Your task to perform on an android device: check data usage Image 0: 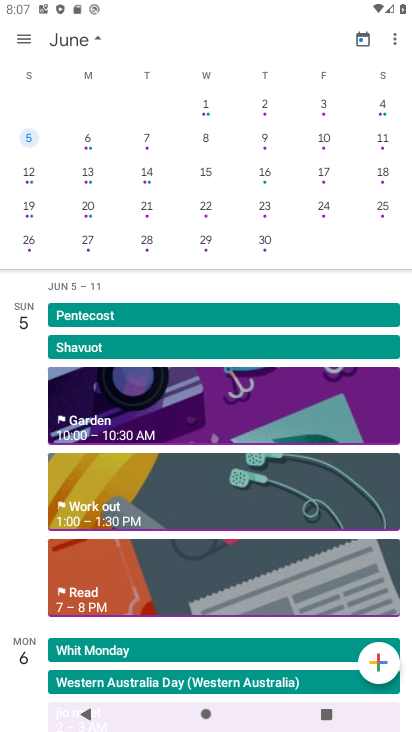
Step 0: press home button
Your task to perform on an android device: check data usage Image 1: 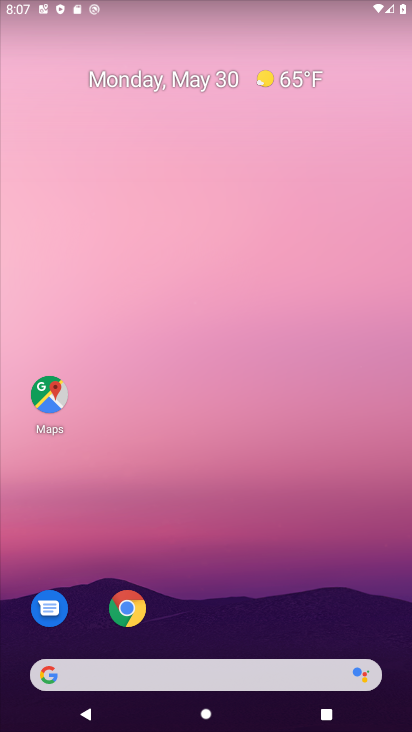
Step 1: drag from (236, 613) to (257, 215)
Your task to perform on an android device: check data usage Image 2: 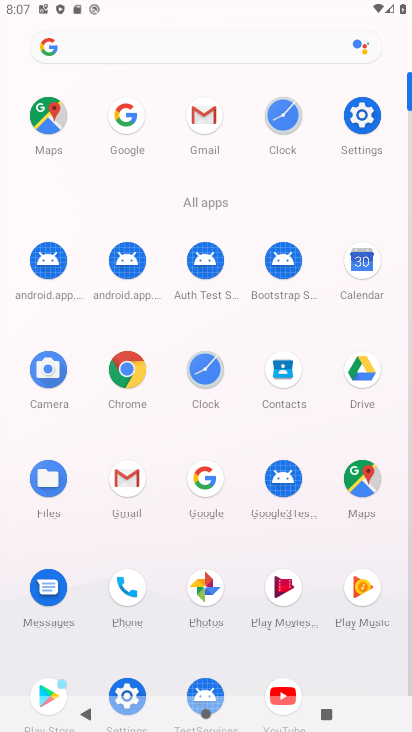
Step 2: click (377, 117)
Your task to perform on an android device: check data usage Image 3: 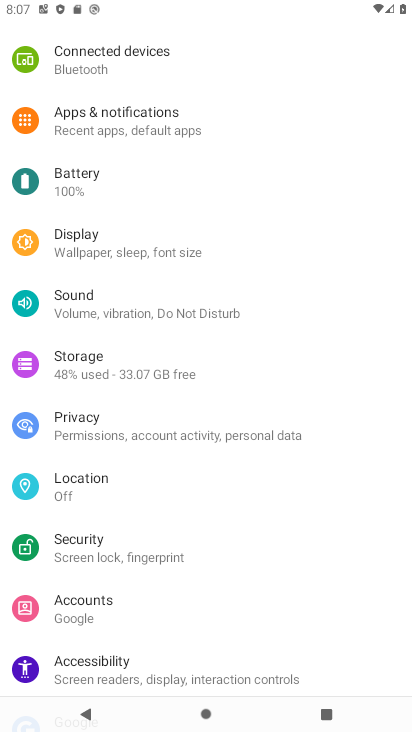
Step 3: drag from (254, 162) to (285, 612)
Your task to perform on an android device: check data usage Image 4: 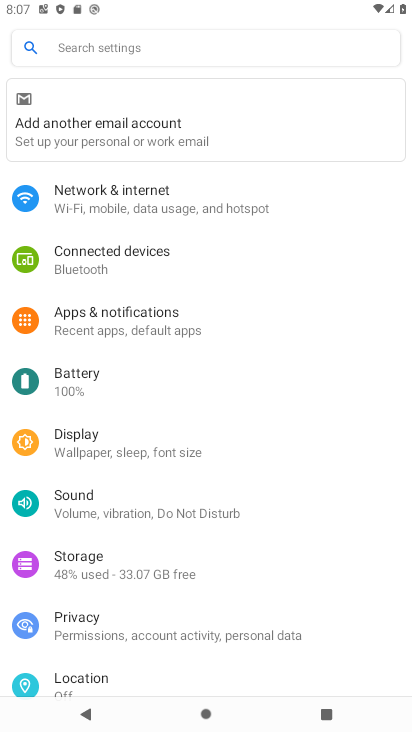
Step 4: click (161, 210)
Your task to perform on an android device: check data usage Image 5: 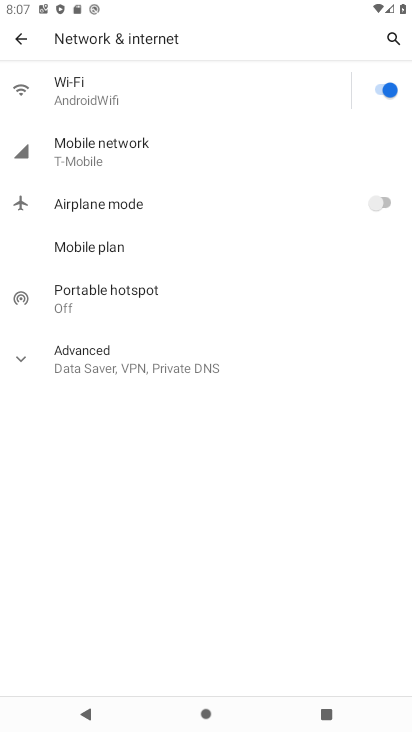
Step 5: click (132, 148)
Your task to perform on an android device: check data usage Image 6: 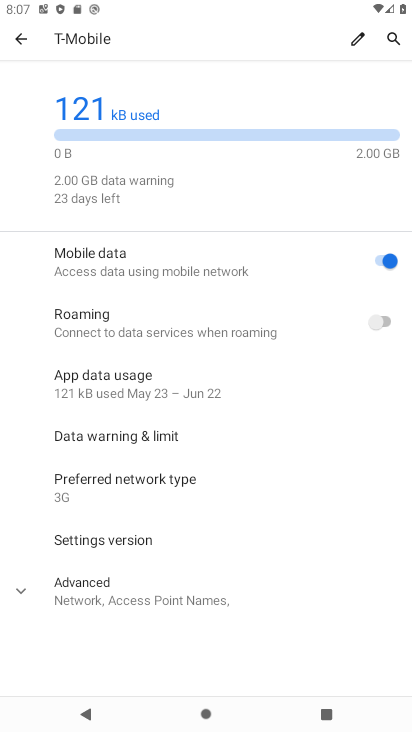
Step 6: click (167, 373)
Your task to perform on an android device: check data usage Image 7: 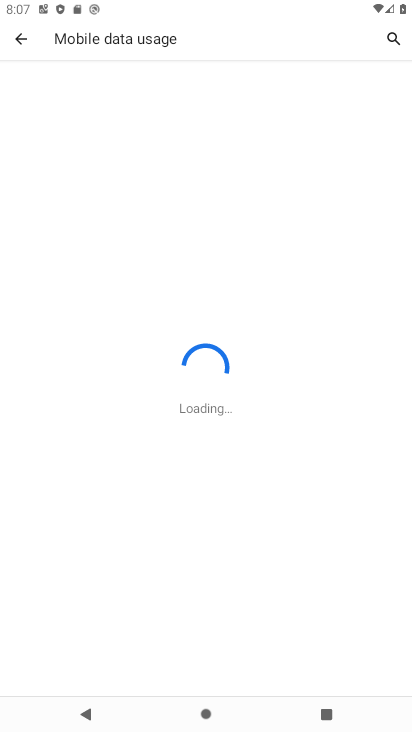
Step 7: task complete